Your task to perform on an android device: refresh tabs in the chrome app Image 0: 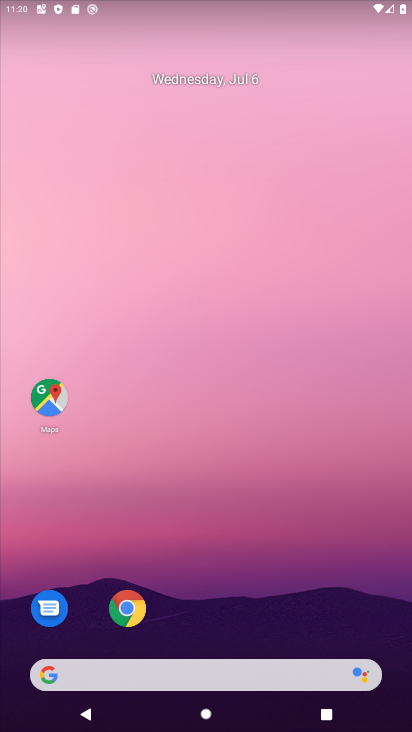
Step 0: drag from (282, 485) to (288, 34)
Your task to perform on an android device: refresh tabs in the chrome app Image 1: 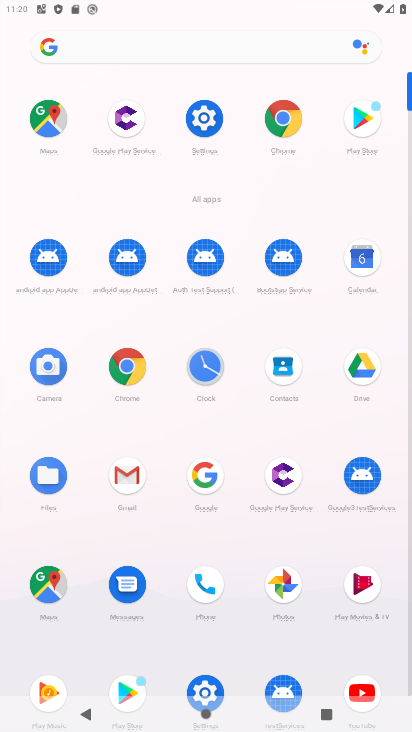
Step 1: click (120, 360)
Your task to perform on an android device: refresh tabs in the chrome app Image 2: 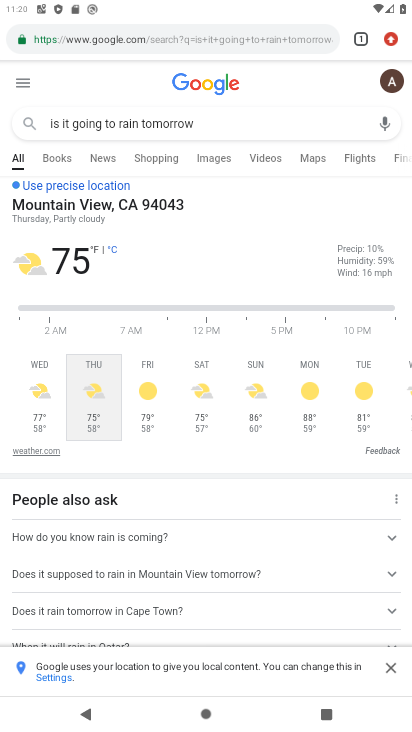
Step 2: click (393, 41)
Your task to perform on an android device: refresh tabs in the chrome app Image 3: 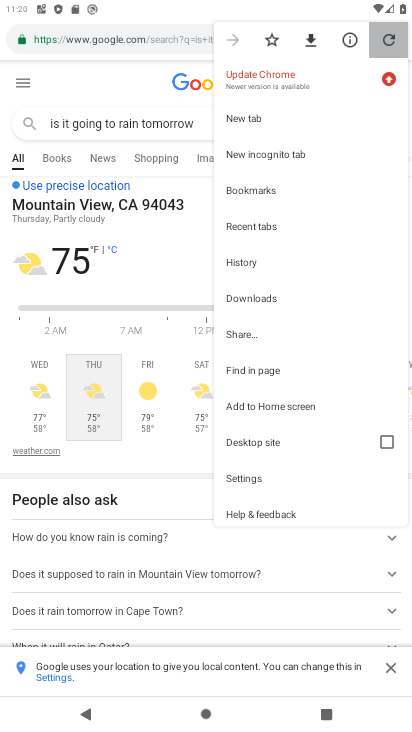
Step 3: click (385, 39)
Your task to perform on an android device: refresh tabs in the chrome app Image 4: 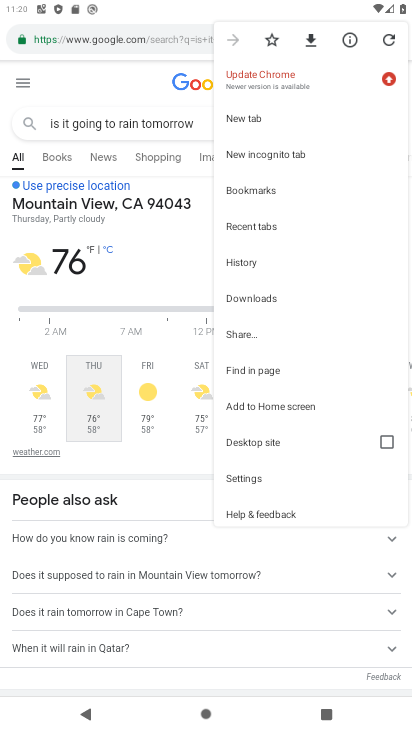
Step 4: task complete